Your task to perform on an android device: add a label to a message in the gmail app Image 0: 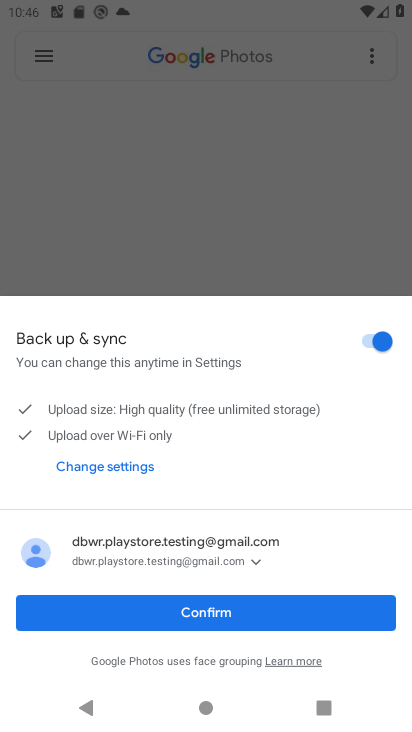
Step 0: press home button
Your task to perform on an android device: add a label to a message in the gmail app Image 1: 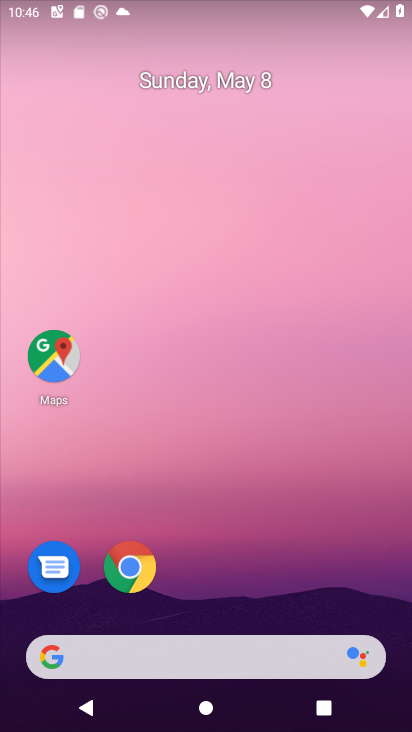
Step 1: drag from (204, 545) to (186, 102)
Your task to perform on an android device: add a label to a message in the gmail app Image 2: 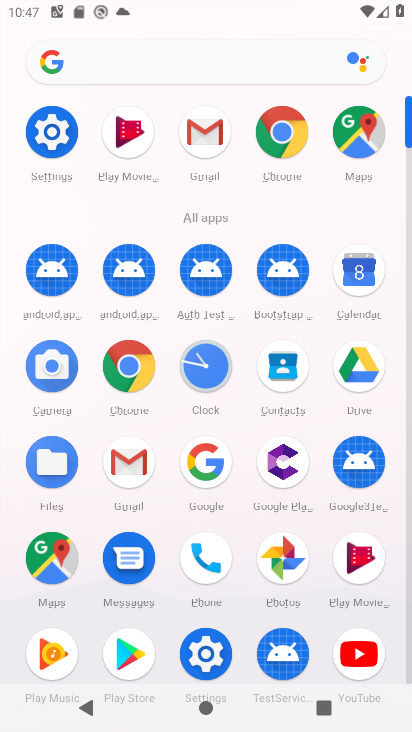
Step 2: click (212, 159)
Your task to perform on an android device: add a label to a message in the gmail app Image 3: 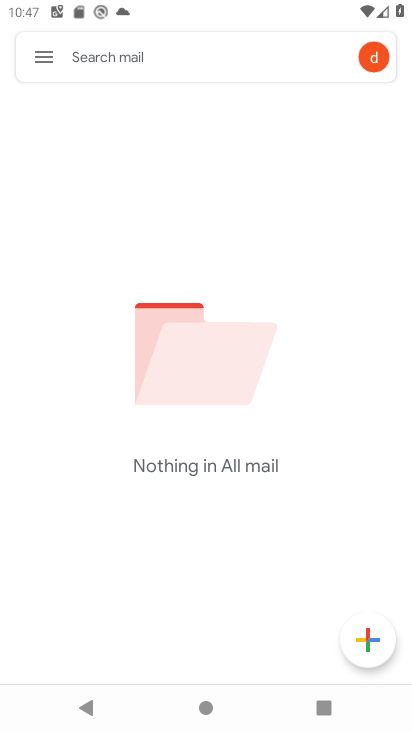
Step 3: click (47, 57)
Your task to perform on an android device: add a label to a message in the gmail app Image 4: 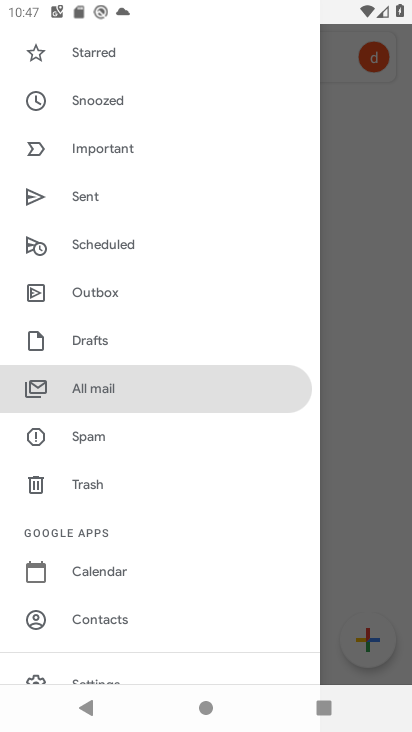
Step 4: click (94, 401)
Your task to perform on an android device: add a label to a message in the gmail app Image 5: 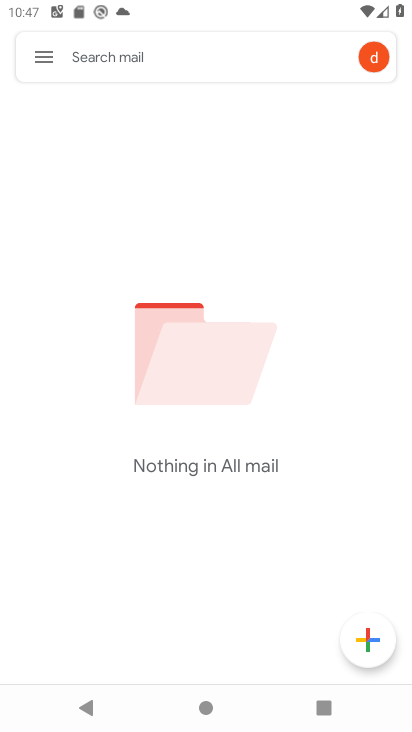
Step 5: task complete